Your task to perform on an android device: Go to Reddit.com Image 0: 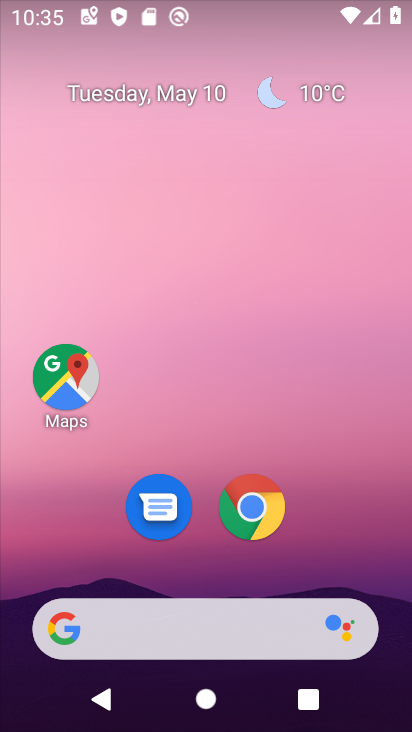
Step 0: click (233, 483)
Your task to perform on an android device: Go to Reddit.com Image 1: 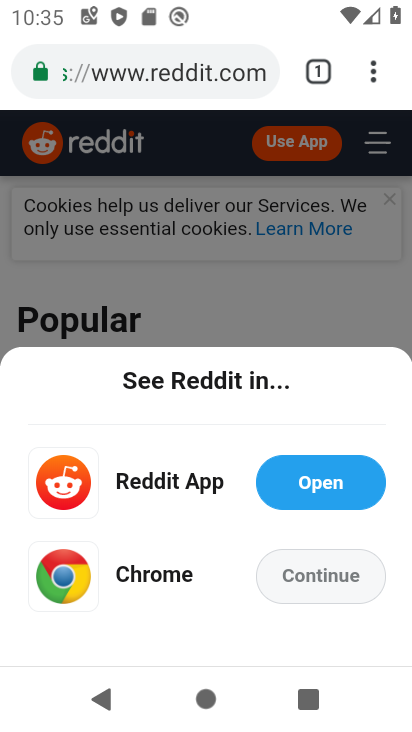
Step 1: task complete